Your task to perform on an android device: turn on improve location accuracy Image 0: 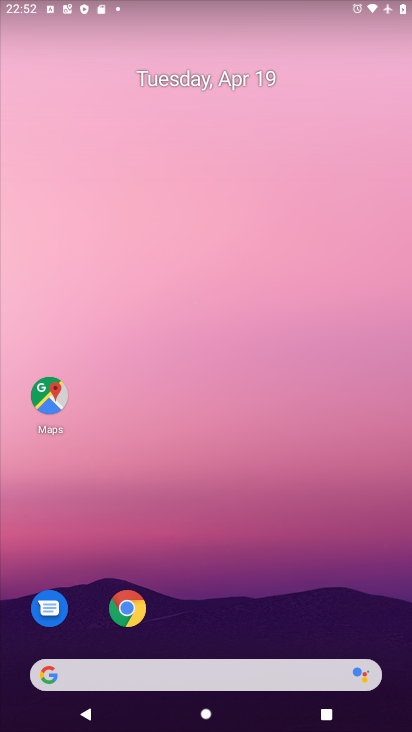
Step 0: drag from (364, 585) to (327, 70)
Your task to perform on an android device: turn on improve location accuracy Image 1: 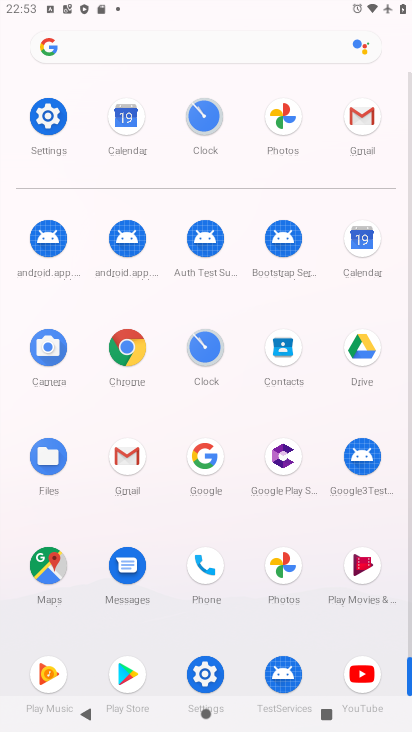
Step 1: click (202, 674)
Your task to perform on an android device: turn on improve location accuracy Image 2: 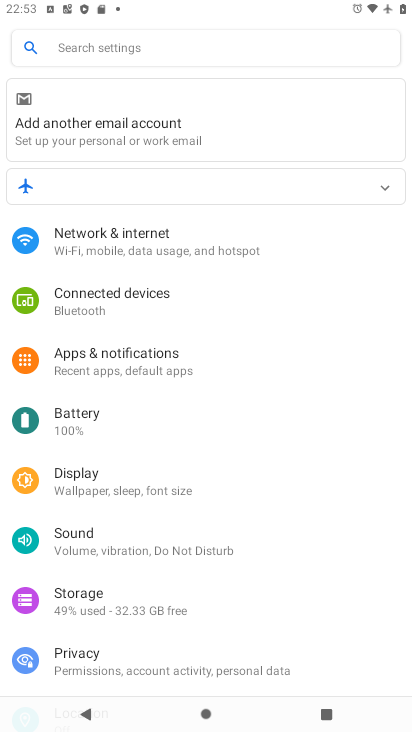
Step 2: drag from (202, 674) to (201, 357)
Your task to perform on an android device: turn on improve location accuracy Image 3: 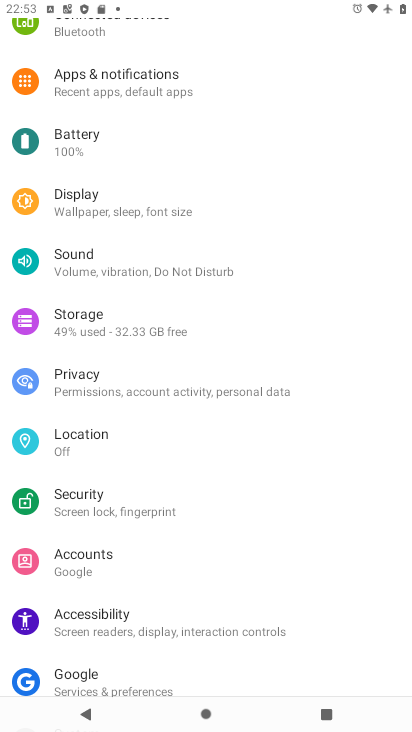
Step 3: click (69, 437)
Your task to perform on an android device: turn on improve location accuracy Image 4: 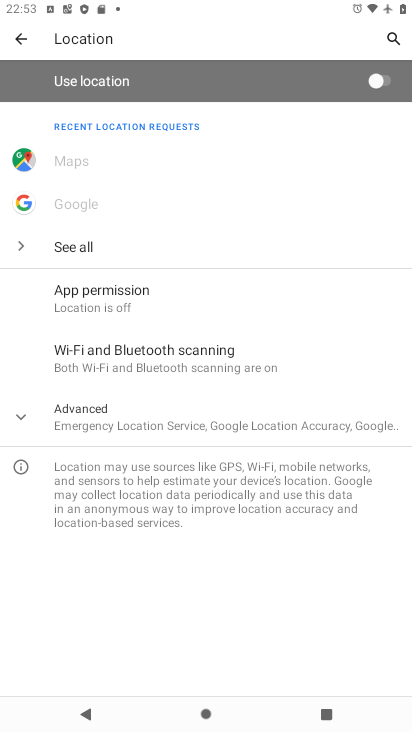
Step 4: click (16, 419)
Your task to perform on an android device: turn on improve location accuracy Image 5: 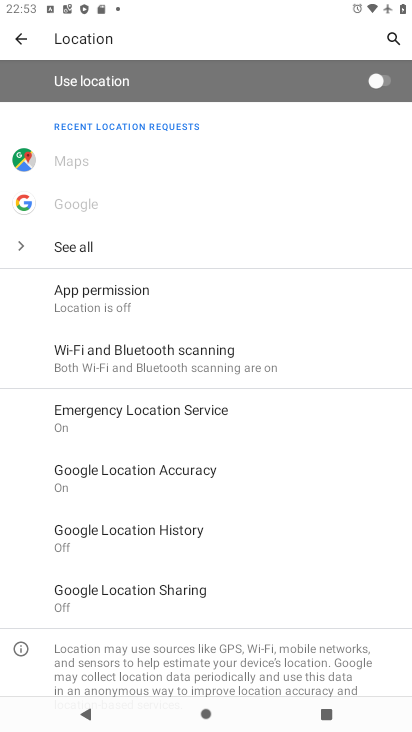
Step 5: click (93, 482)
Your task to perform on an android device: turn on improve location accuracy Image 6: 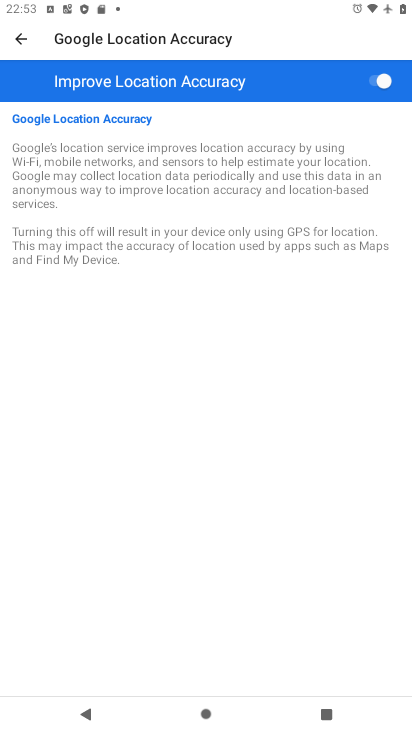
Step 6: task complete